Your task to perform on an android device: Go to notification settings Image 0: 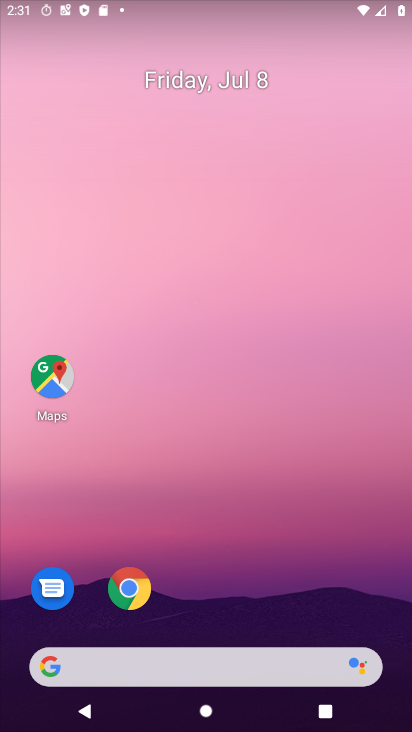
Step 0: press home button
Your task to perform on an android device: Go to notification settings Image 1: 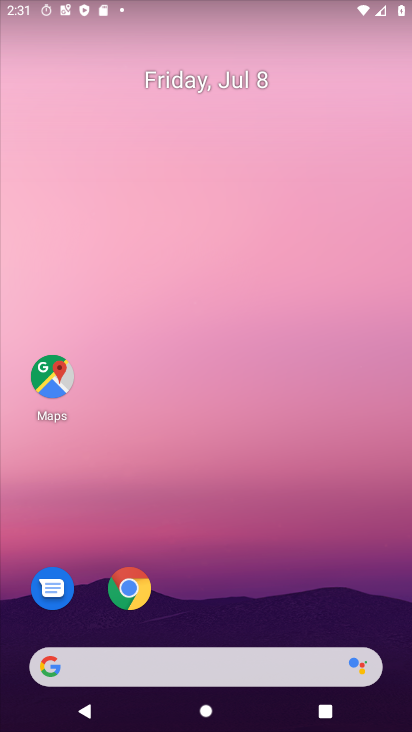
Step 1: drag from (311, 623) to (311, 86)
Your task to perform on an android device: Go to notification settings Image 2: 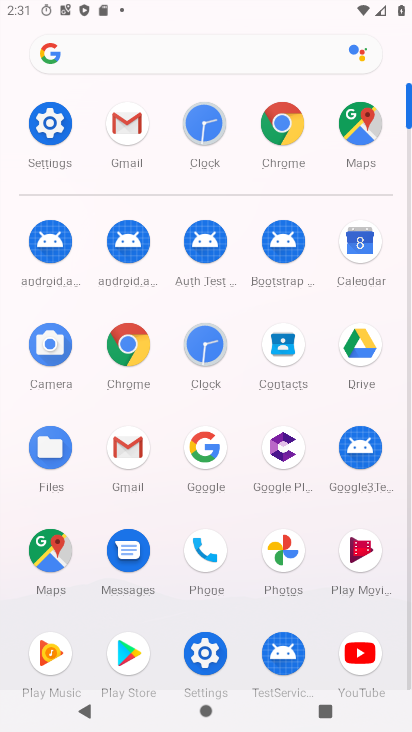
Step 2: click (31, 123)
Your task to perform on an android device: Go to notification settings Image 3: 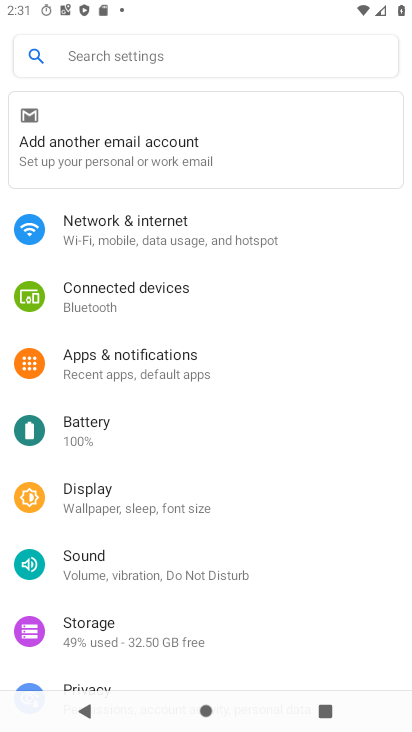
Step 3: click (143, 369)
Your task to perform on an android device: Go to notification settings Image 4: 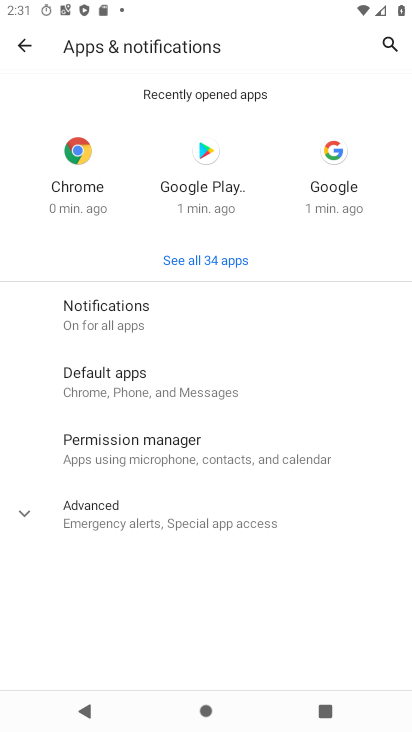
Step 4: click (95, 314)
Your task to perform on an android device: Go to notification settings Image 5: 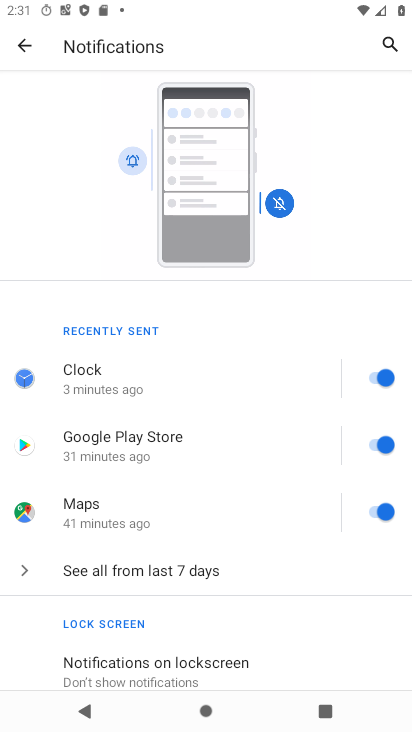
Step 5: task complete